Your task to perform on an android device: Go to Wikipedia Image 0: 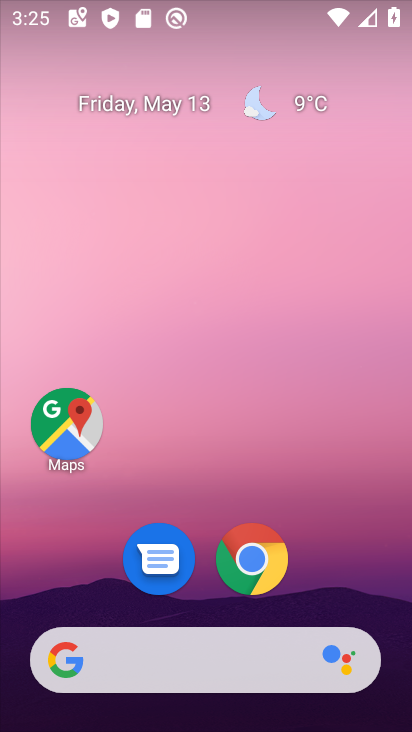
Step 0: click (248, 555)
Your task to perform on an android device: Go to Wikipedia Image 1: 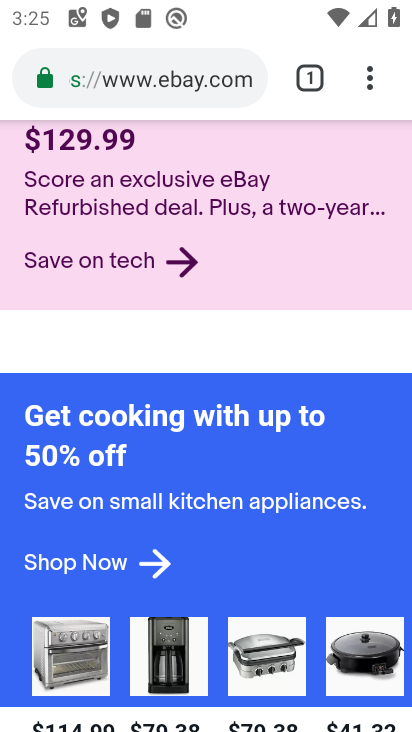
Step 1: click (190, 67)
Your task to perform on an android device: Go to Wikipedia Image 2: 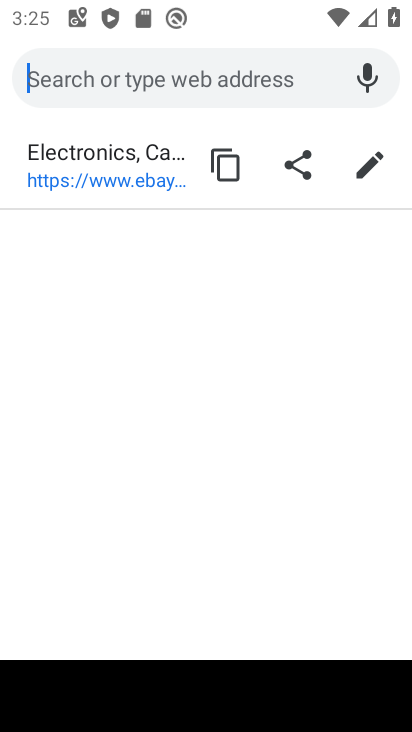
Step 2: type "wikipedia"
Your task to perform on an android device: Go to Wikipedia Image 3: 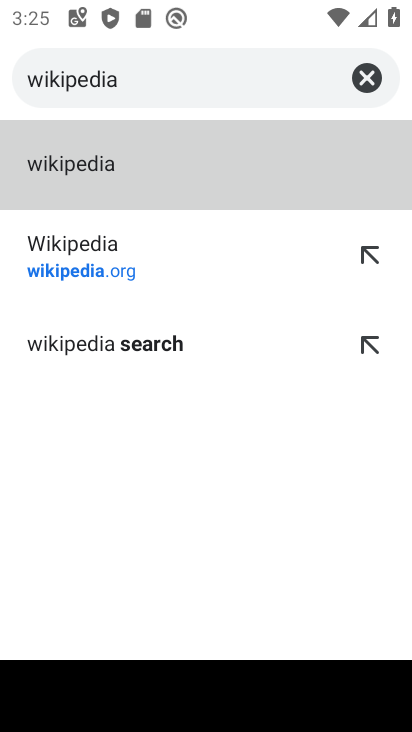
Step 3: click (67, 240)
Your task to perform on an android device: Go to Wikipedia Image 4: 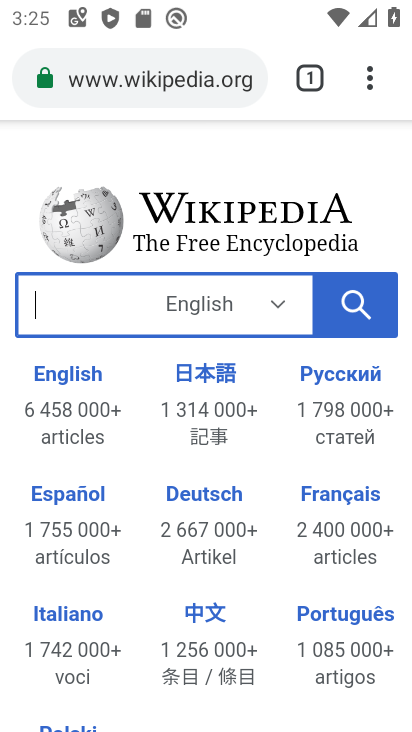
Step 4: task complete